Your task to perform on an android device: set an alarm Image 0: 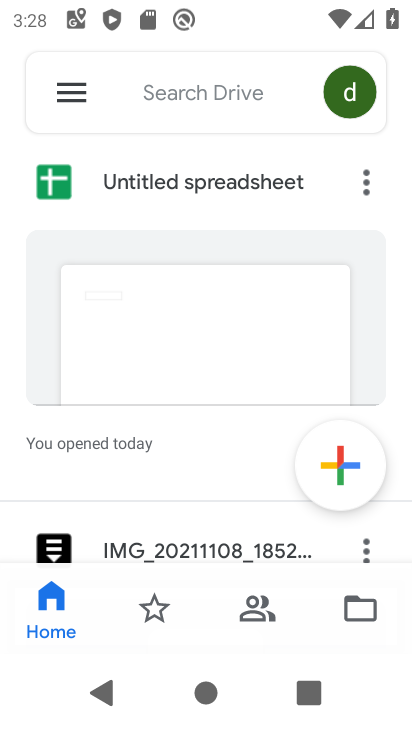
Step 0: press back button
Your task to perform on an android device: set an alarm Image 1: 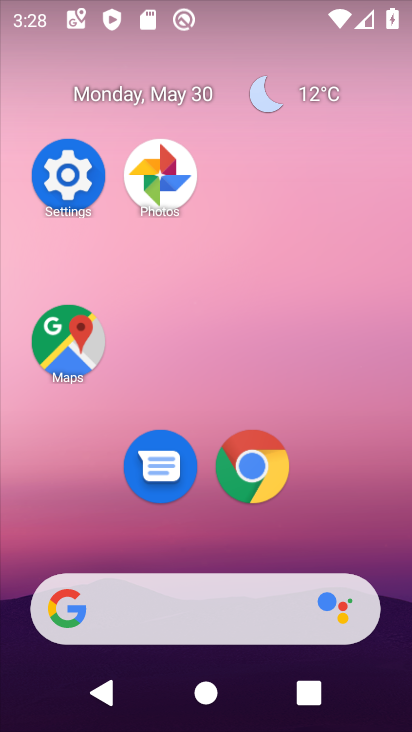
Step 1: click (66, 166)
Your task to perform on an android device: set an alarm Image 2: 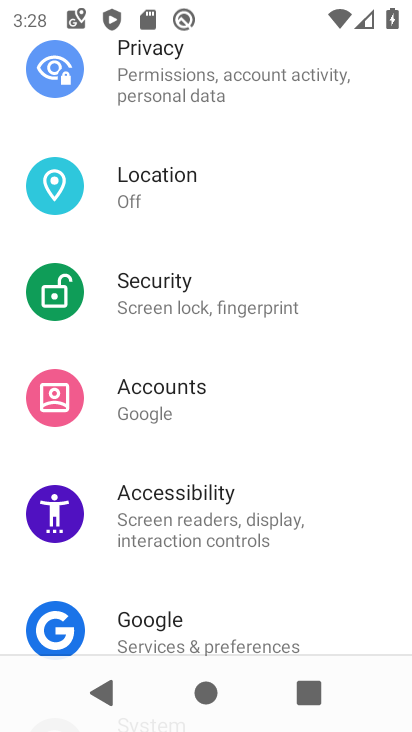
Step 2: press home button
Your task to perform on an android device: set an alarm Image 3: 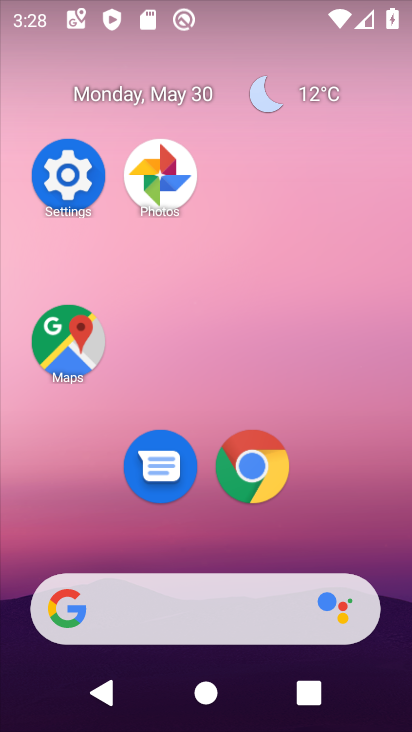
Step 3: drag from (230, 535) to (232, 49)
Your task to perform on an android device: set an alarm Image 4: 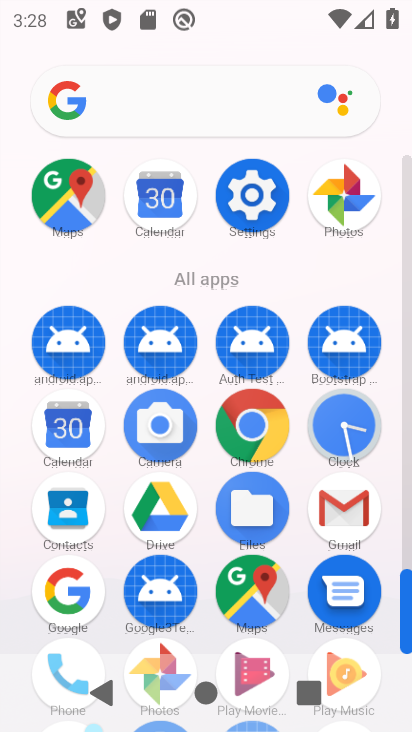
Step 4: click (373, 415)
Your task to perform on an android device: set an alarm Image 5: 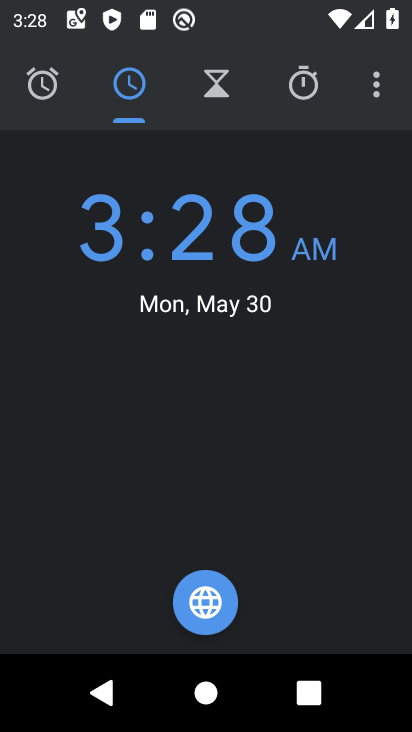
Step 5: click (39, 102)
Your task to perform on an android device: set an alarm Image 6: 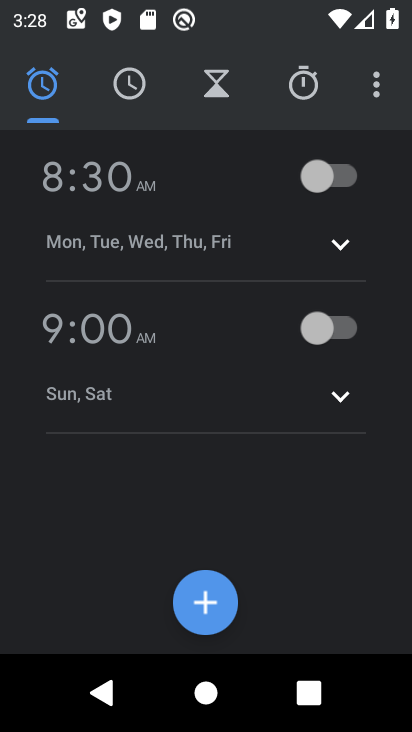
Step 6: click (328, 192)
Your task to perform on an android device: set an alarm Image 7: 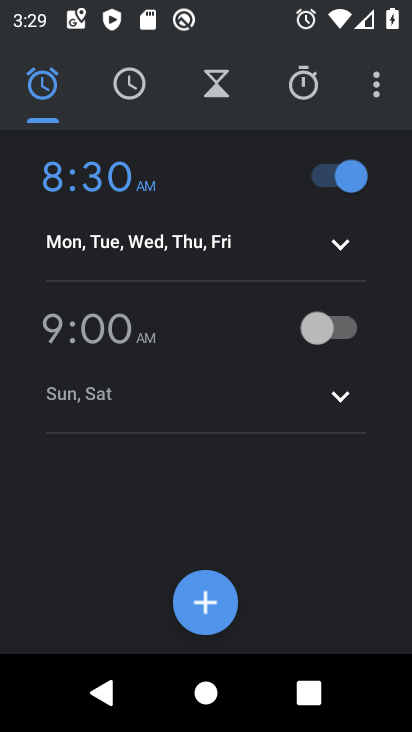
Step 7: task complete